Your task to perform on an android device: Open calendar and show me the first week of next month Image 0: 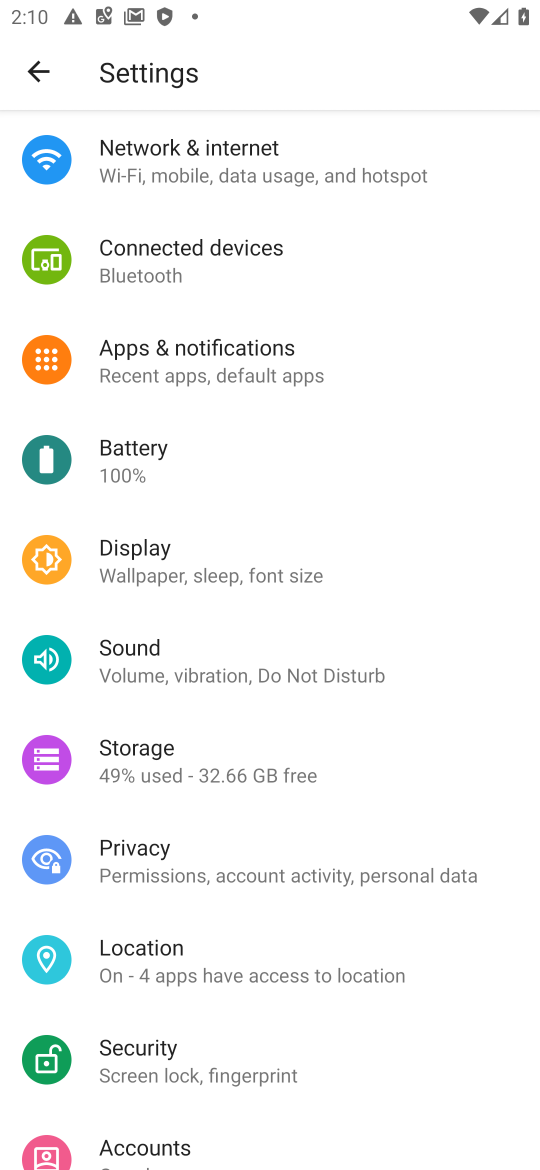
Step 0: press home button
Your task to perform on an android device: Open calendar and show me the first week of next month Image 1: 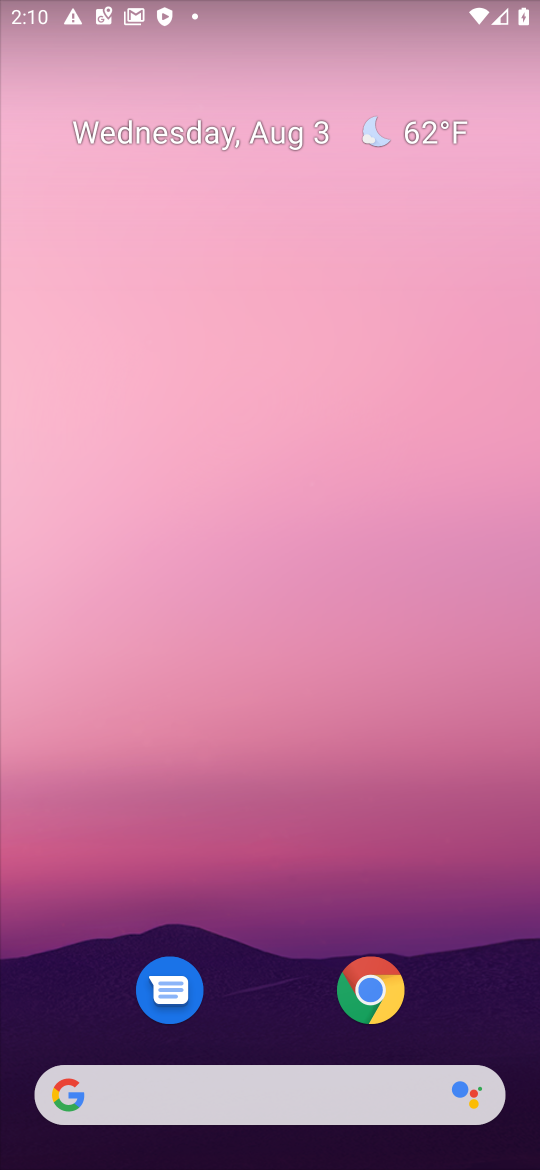
Step 1: drag from (225, 1071) to (236, 479)
Your task to perform on an android device: Open calendar and show me the first week of next month Image 2: 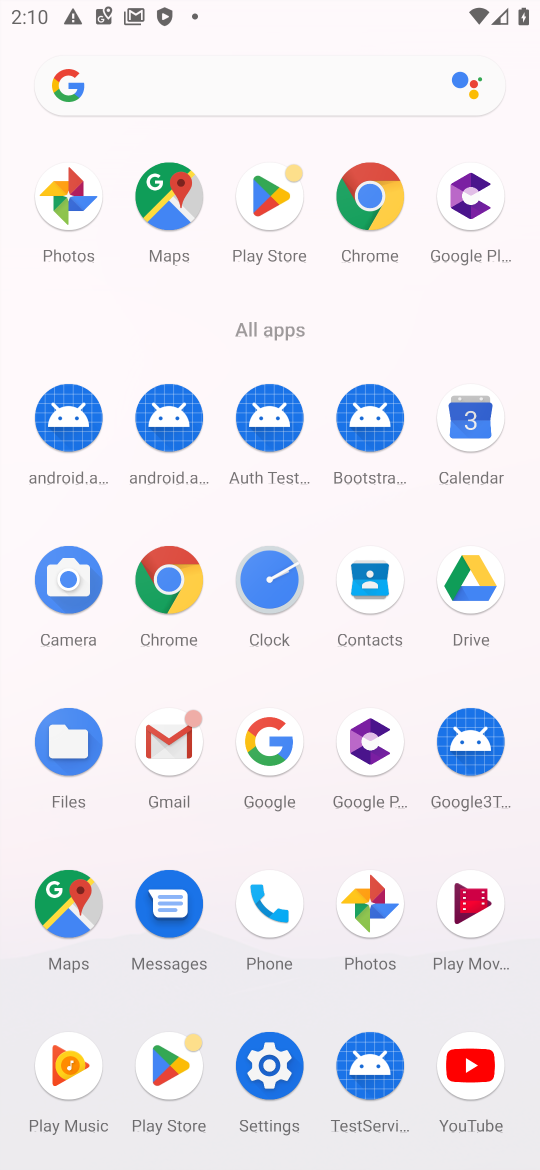
Step 2: click (470, 436)
Your task to perform on an android device: Open calendar and show me the first week of next month Image 3: 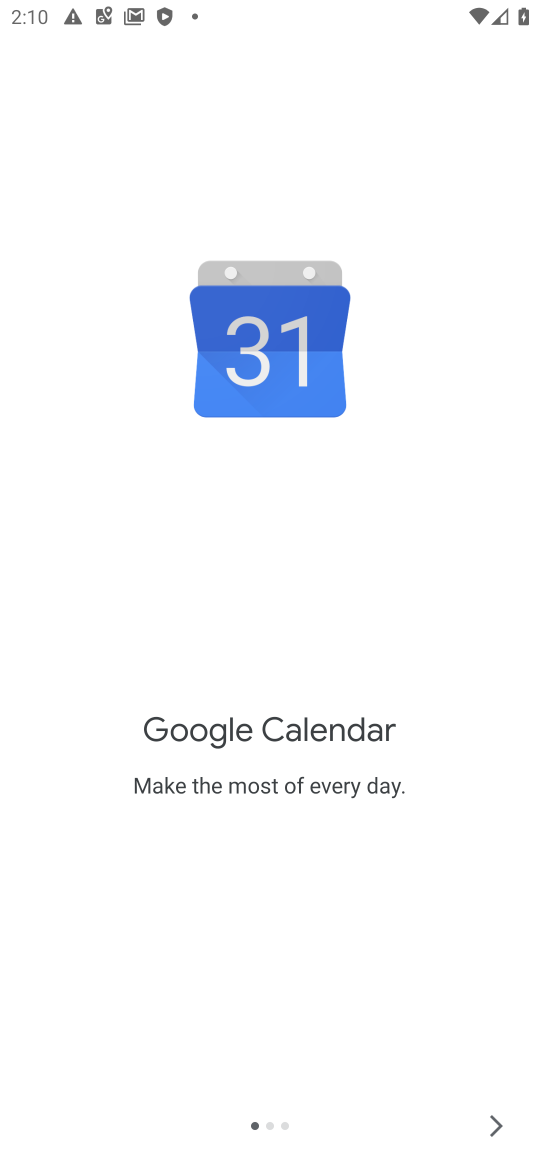
Step 3: click (486, 1123)
Your task to perform on an android device: Open calendar and show me the first week of next month Image 4: 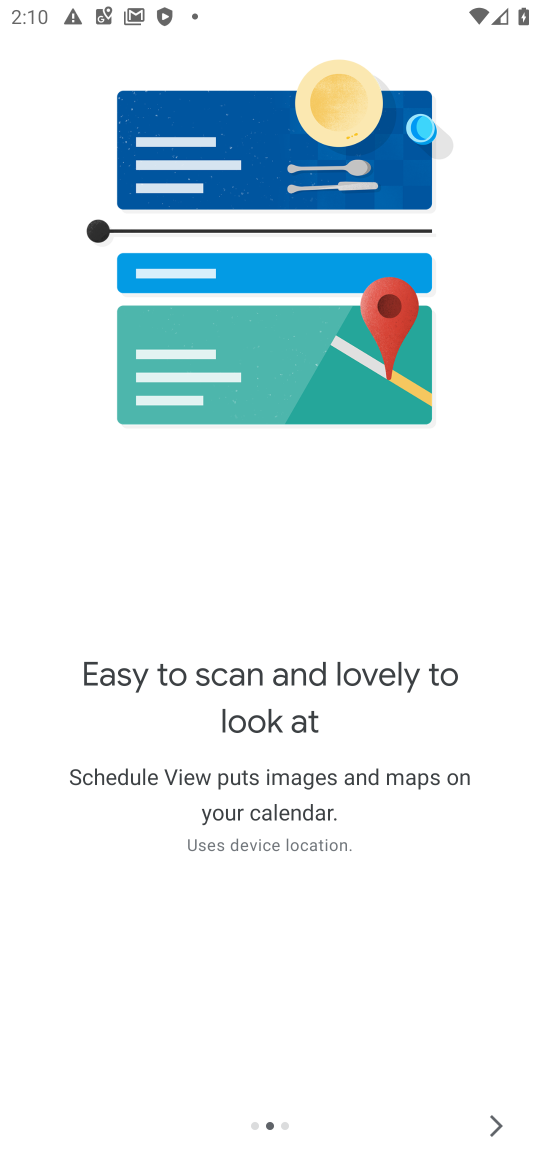
Step 4: click (486, 1123)
Your task to perform on an android device: Open calendar and show me the first week of next month Image 5: 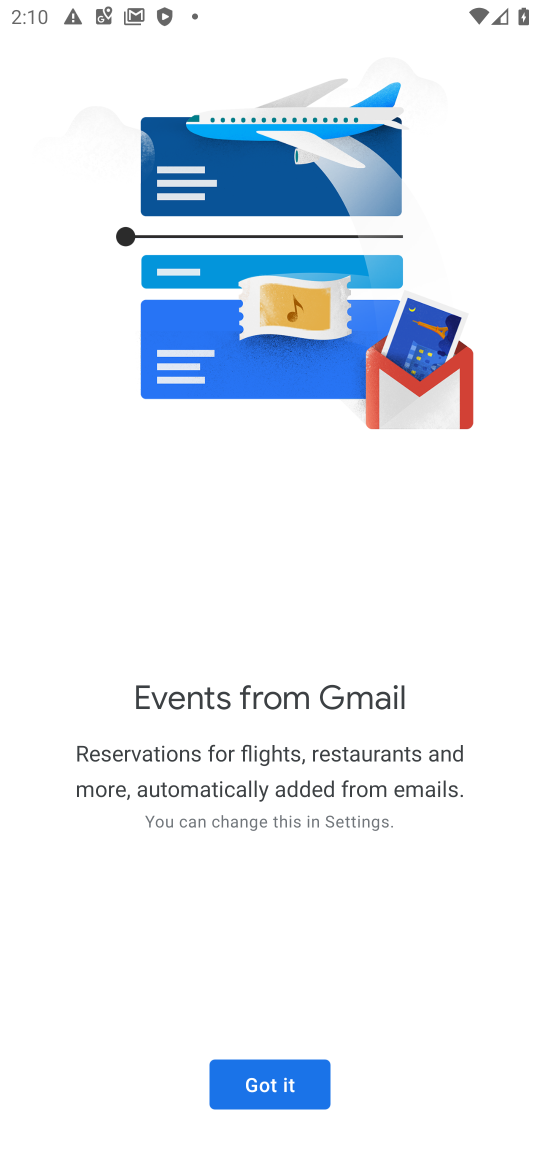
Step 5: click (248, 1078)
Your task to perform on an android device: Open calendar and show me the first week of next month Image 6: 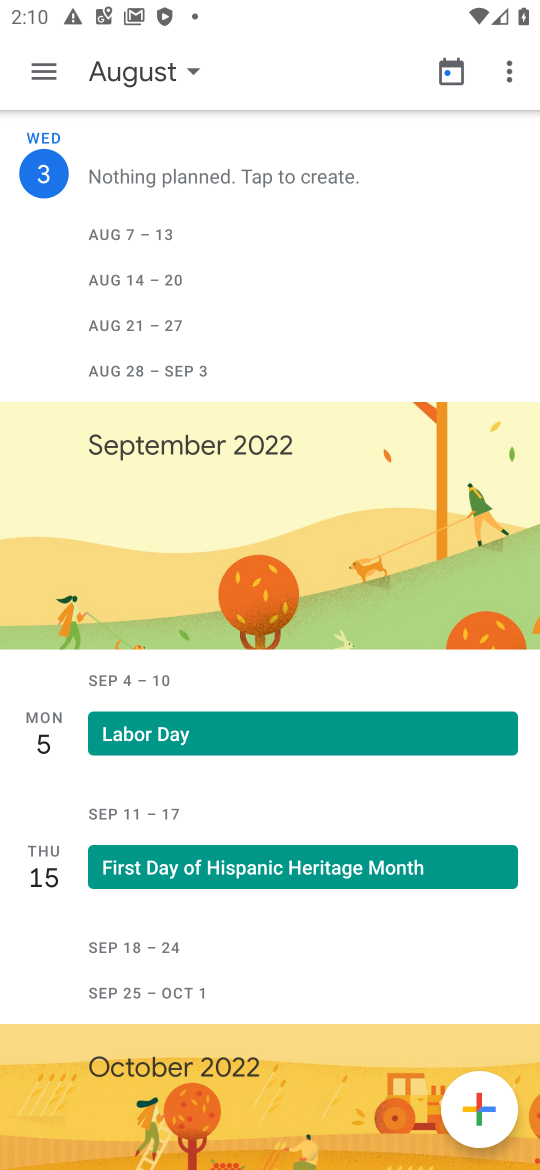
Step 6: click (137, 69)
Your task to perform on an android device: Open calendar and show me the first week of next month Image 7: 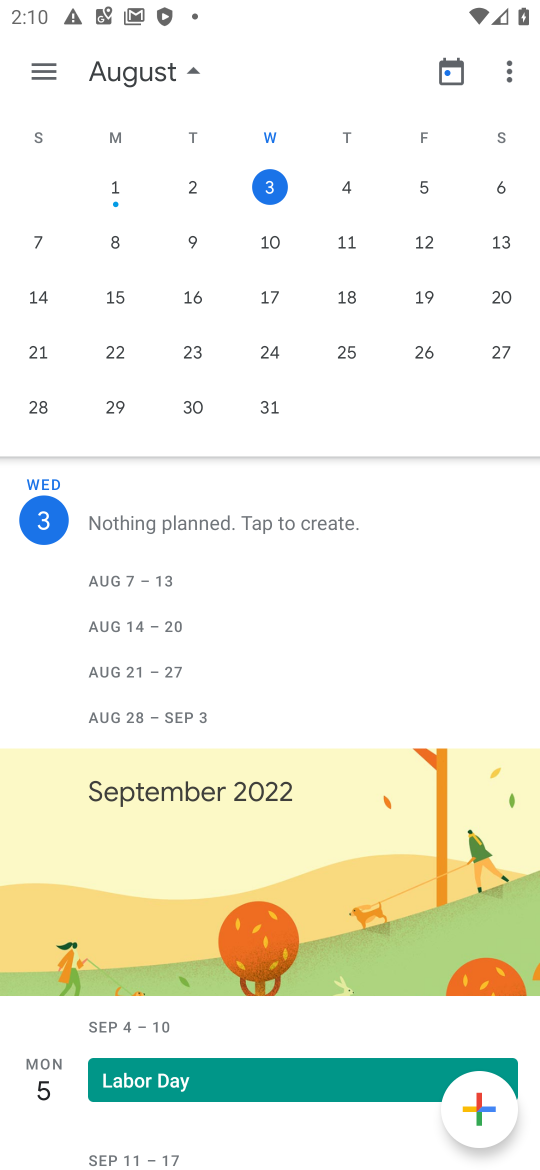
Step 7: drag from (450, 319) to (0, 357)
Your task to perform on an android device: Open calendar and show me the first week of next month Image 8: 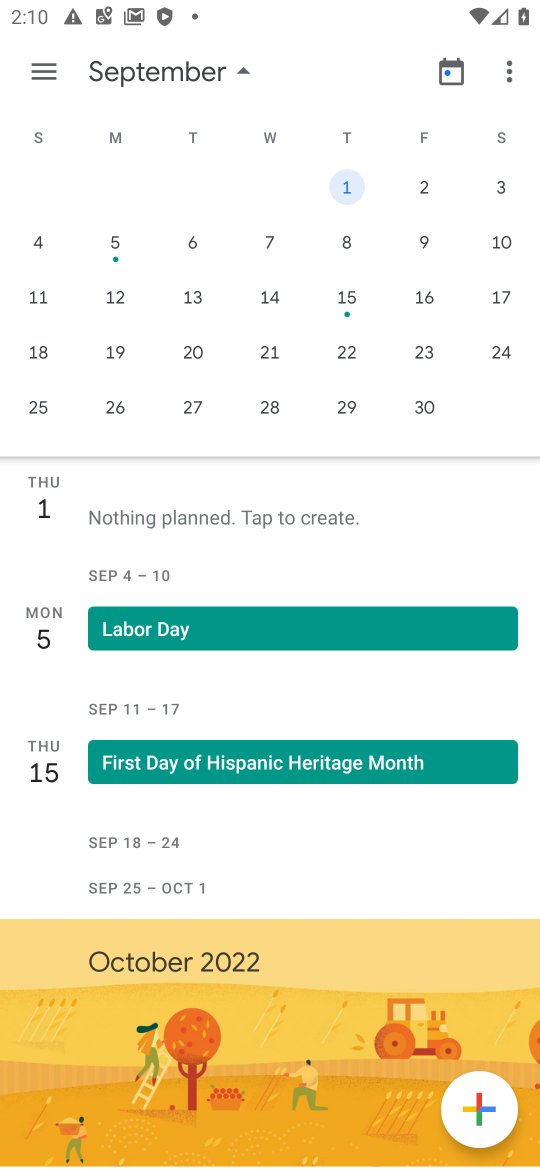
Step 8: click (42, 241)
Your task to perform on an android device: Open calendar and show me the first week of next month Image 9: 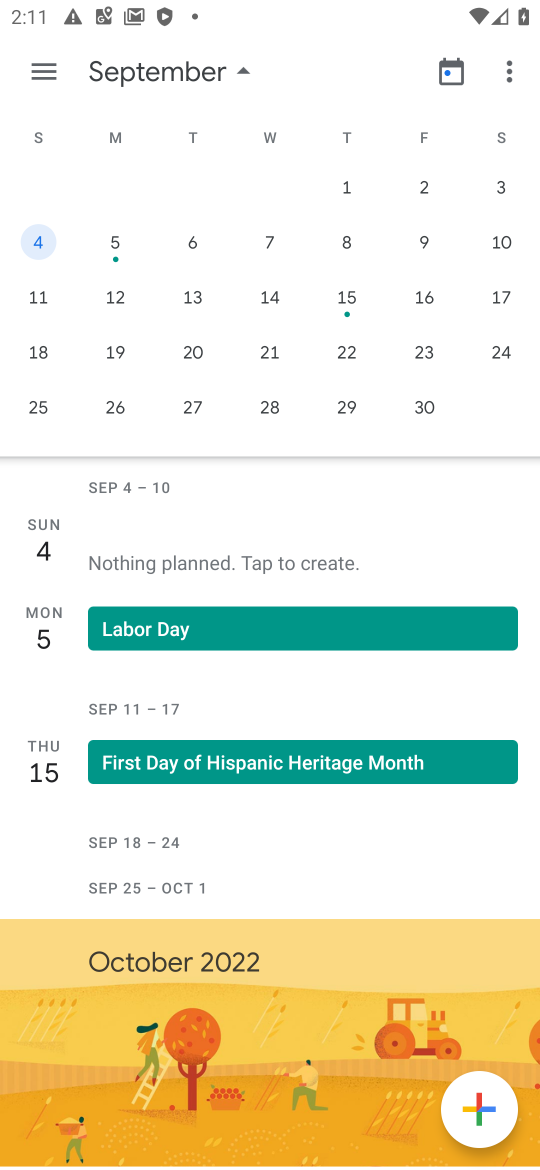
Step 9: task complete